Your task to perform on an android device: turn on airplane mode Image 0: 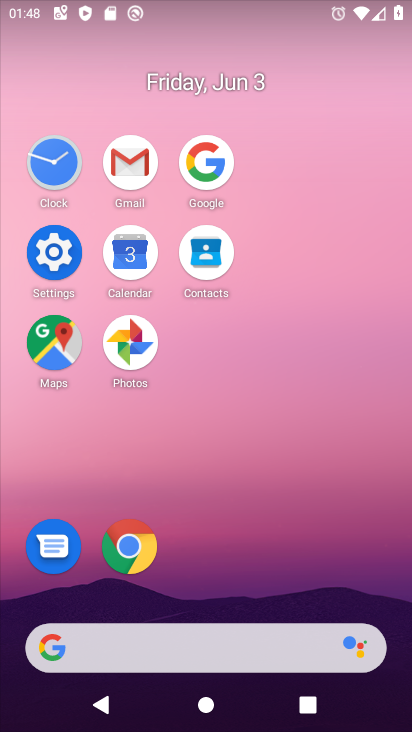
Step 0: click (61, 248)
Your task to perform on an android device: turn on airplane mode Image 1: 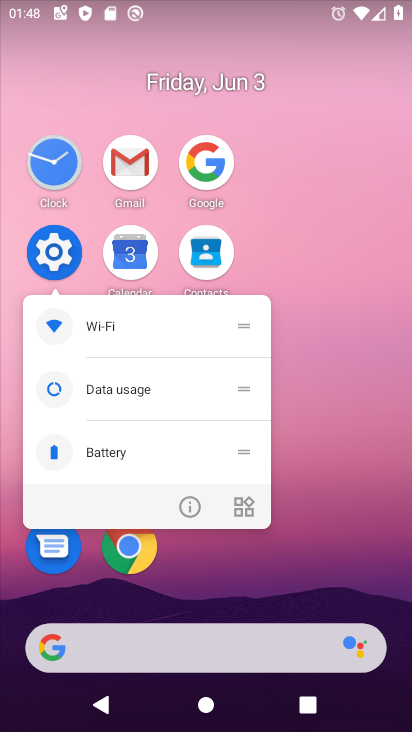
Step 1: click (46, 233)
Your task to perform on an android device: turn on airplane mode Image 2: 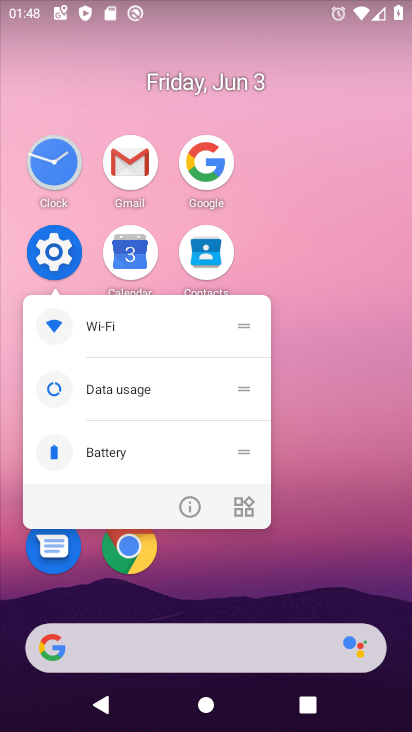
Step 2: click (65, 249)
Your task to perform on an android device: turn on airplane mode Image 3: 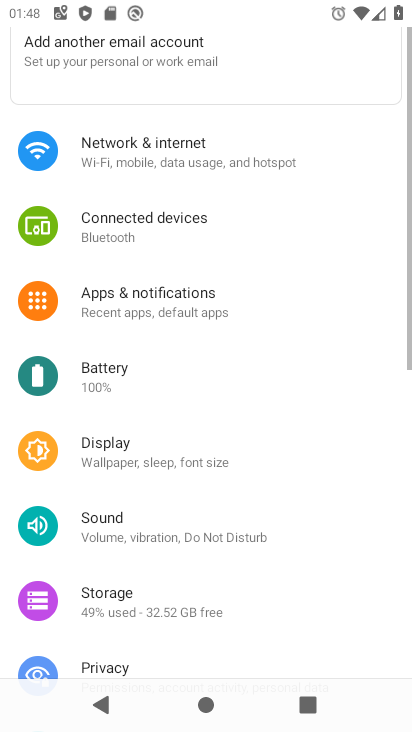
Step 3: click (178, 156)
Your task to perform on an android device: turn on airplane mode Image 4: 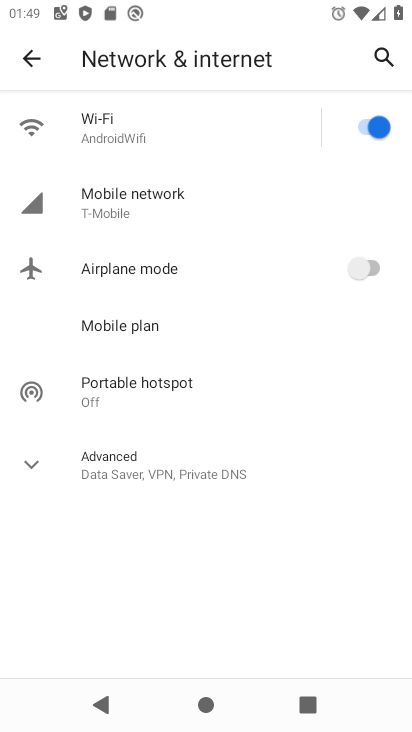
Step 4: click (369, 279)
Your task to perform on an android device: turn on airplane mode Image 5: 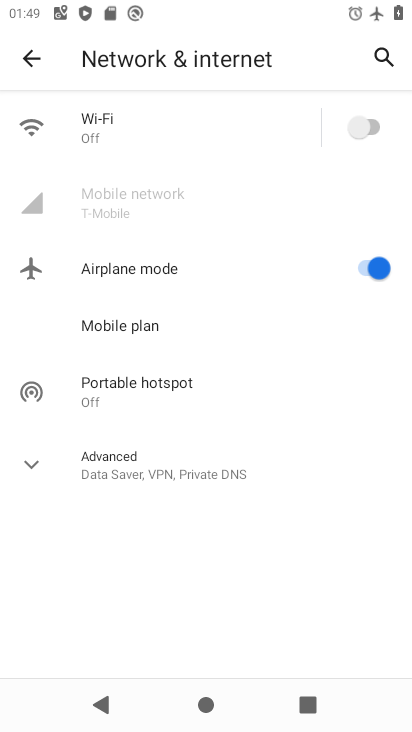
Step 5: task complete